Your task to perform on an android device: Open Wikipedia Image 0: 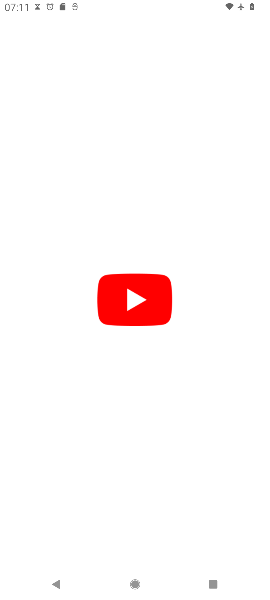
Step 0: press home button
Your task to perform on an android device: Open Wikipedia Image 1: 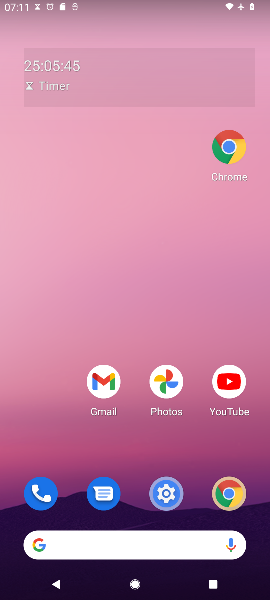
Step 1: click (35, 547)
Your task to perform on an android device: Open Wikipedia Image 2: 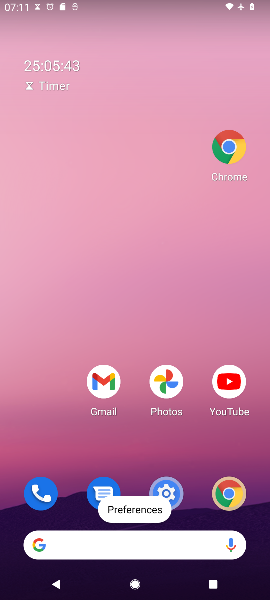
Step 2: click (37, 543)
Your task to perform on an android device: Open Wikipedia Image 3: 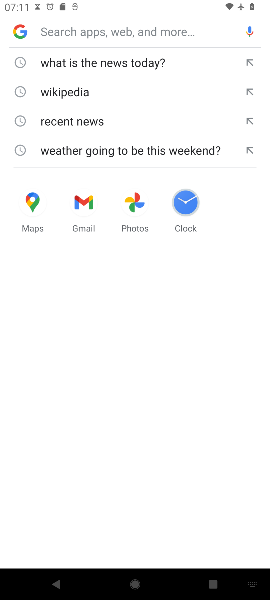
Step 3: click (69, 92)
Your task to perform on an android device: Open Wikipedia Image 4: 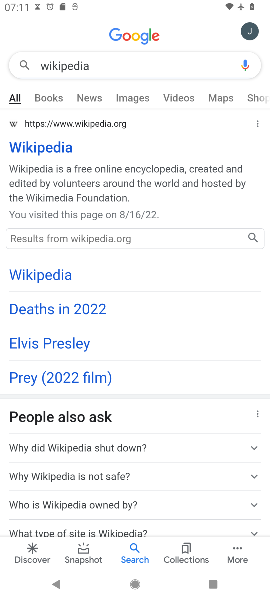
Step 4: click (43, 146)
Your task to perform on an android device: Open Wikipedia Image 5: 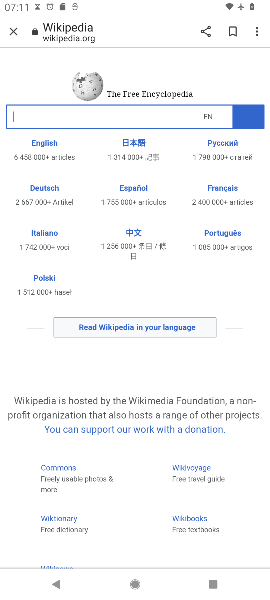
Step 5: task complete